Your task to perform on an android device: open sync settings in chrome Image 0: 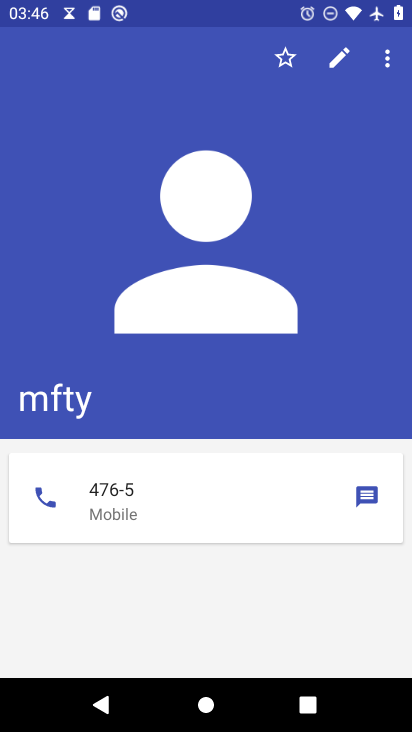
Step 0: press home button
Your task to perform on an android device: open sync settings in chrome Image 1: 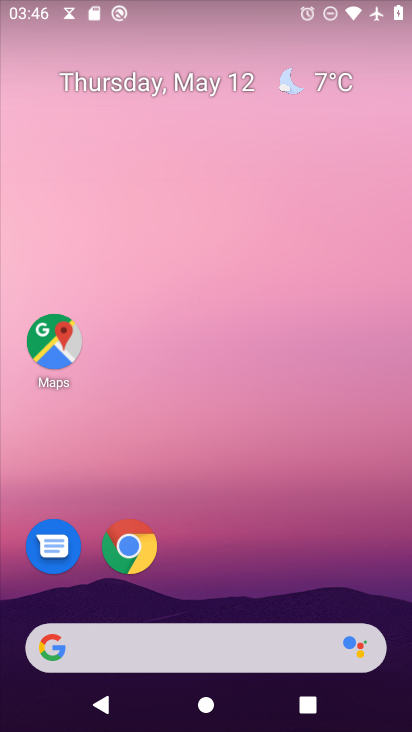
Step 1: drag from (202, 650) to (316, 177)
Your task to perform on an android device: open sync settings in chrome Image 2: 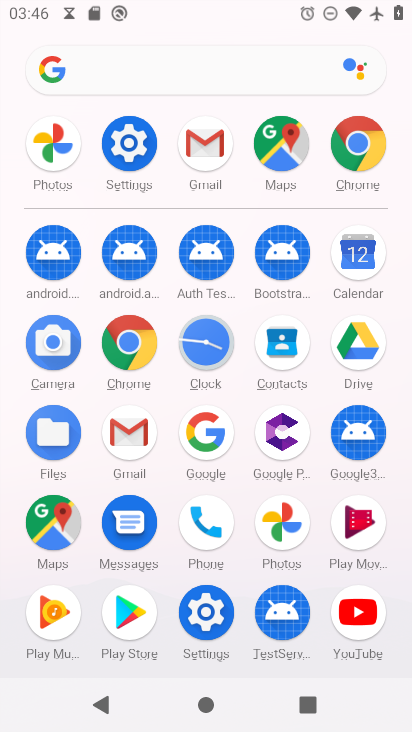
Step 2: click (347, 152)
Your task to perform on an android device: open sync settings in chrome Image 3: 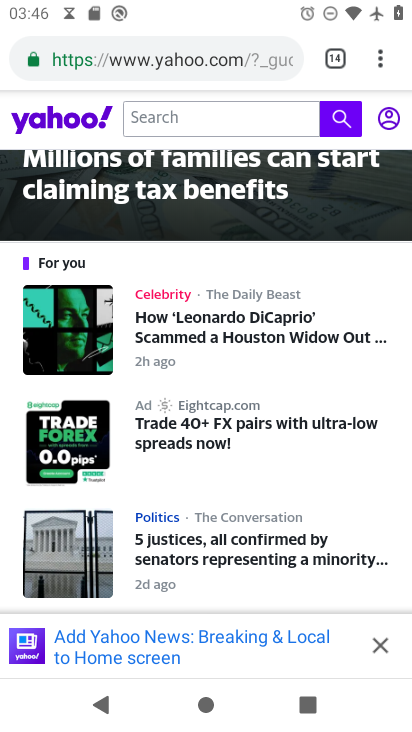
Step 3: drag from (380, 62) to (250, 575)
Your task to perform on an android device: open sync settings in chrome Image 4: 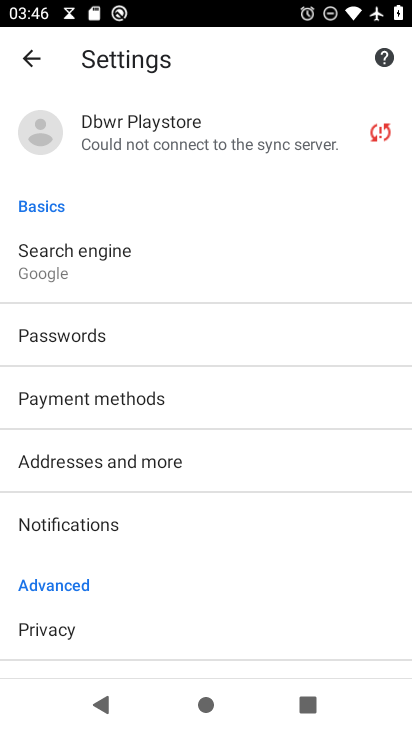
Step 4: click (180, 149)
Your task to perform on an android device: open sync settings in chrome Image 5: 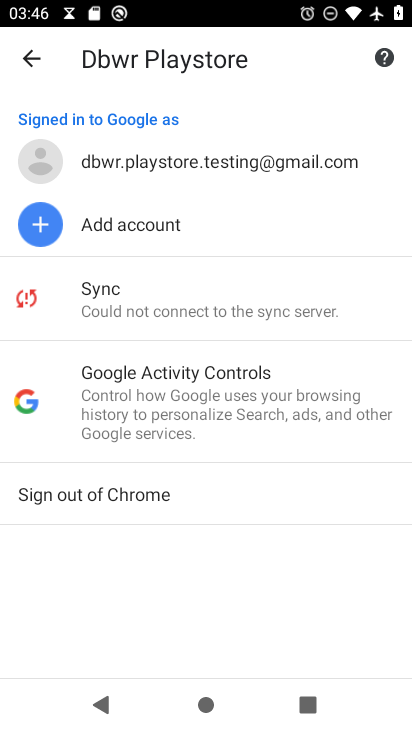
Step 5: click (156, 307)
Your task to perform on an android device: open sync settings in chrome Image 6: 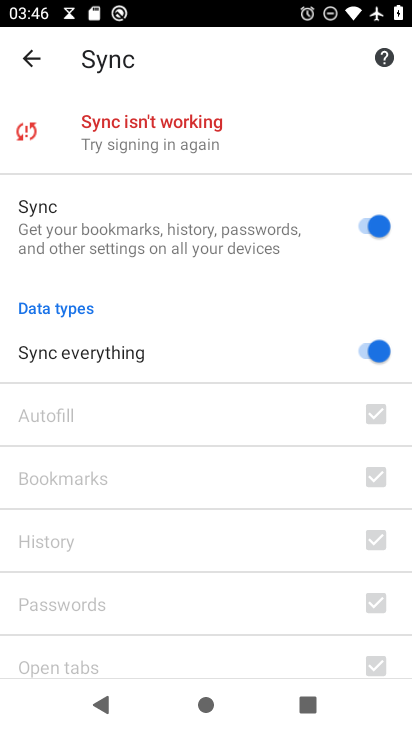
Step 6: task complete